Your task to perform on an android device: Show me popular videos on Youtube Image 0: 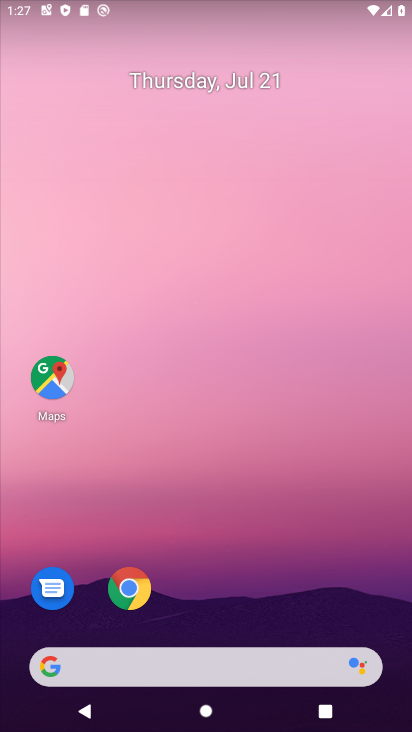
Step 0: drag from (254, 633) to (256, 73)
Your task to perform on an android device: Show me popular videos on Youtube Image 1: 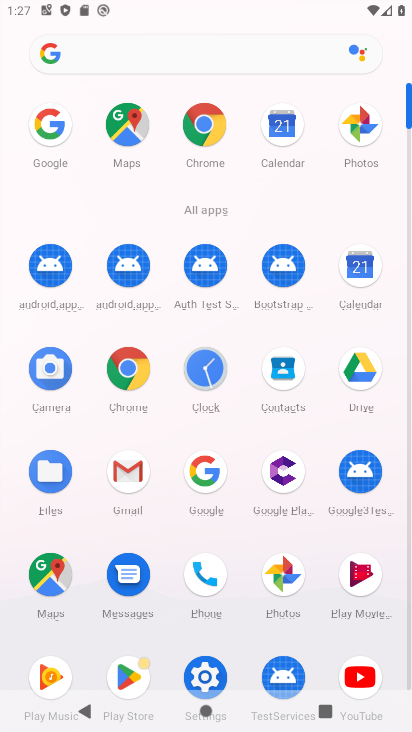
Step 1: click (364, 673)
Your task to perform on an android device: Show me popular videos on Youtube Image 2: 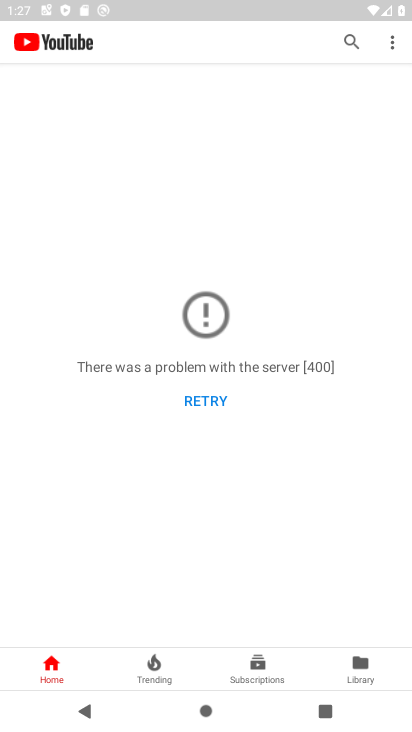
Step 2: click (161, 671)
Your task to perform on an android device: Show me popular videos on Youtube Image 3: 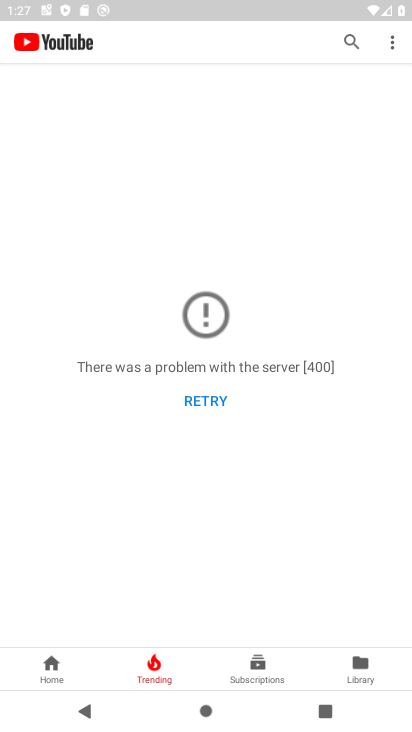
Step 3: task complete